Your task to perform on an android device: change notification settings in the gmail app Image 0: 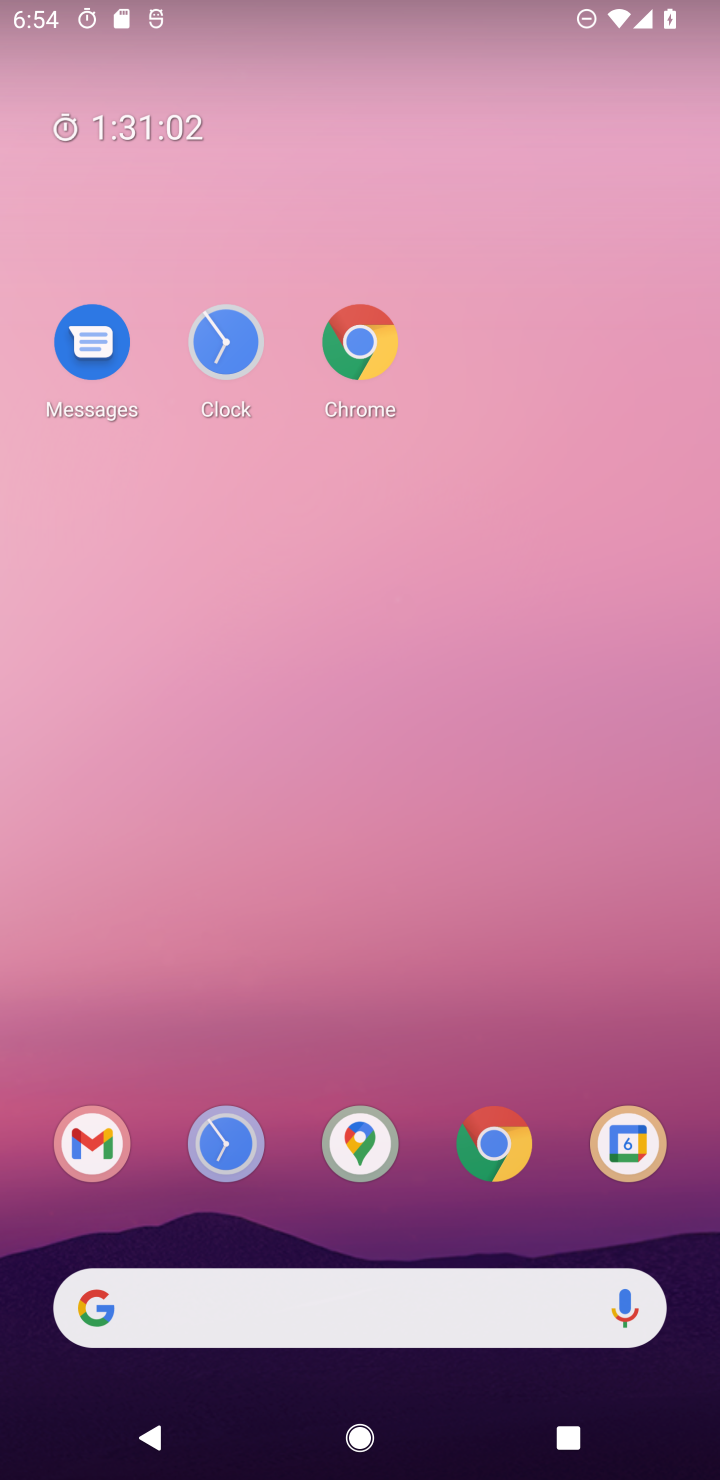
Step 0: drag from (446, 477) to (470, 391)
Your task to perform on an android device: change notification settings in the gmail app Image 1: 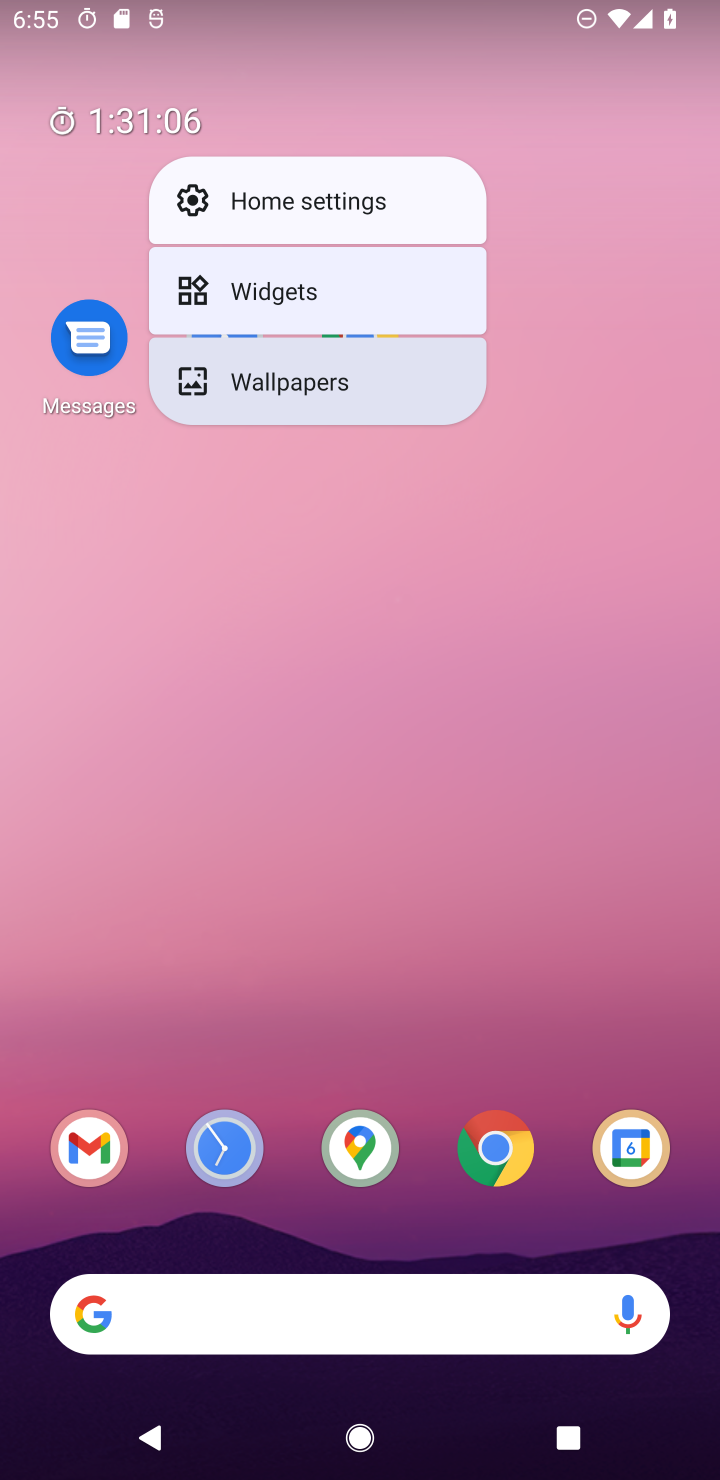
Step 1: drag from (466, 900) to (602, 334)
Your task to perform on an android device: change notification settings in the gmail app Image 2: 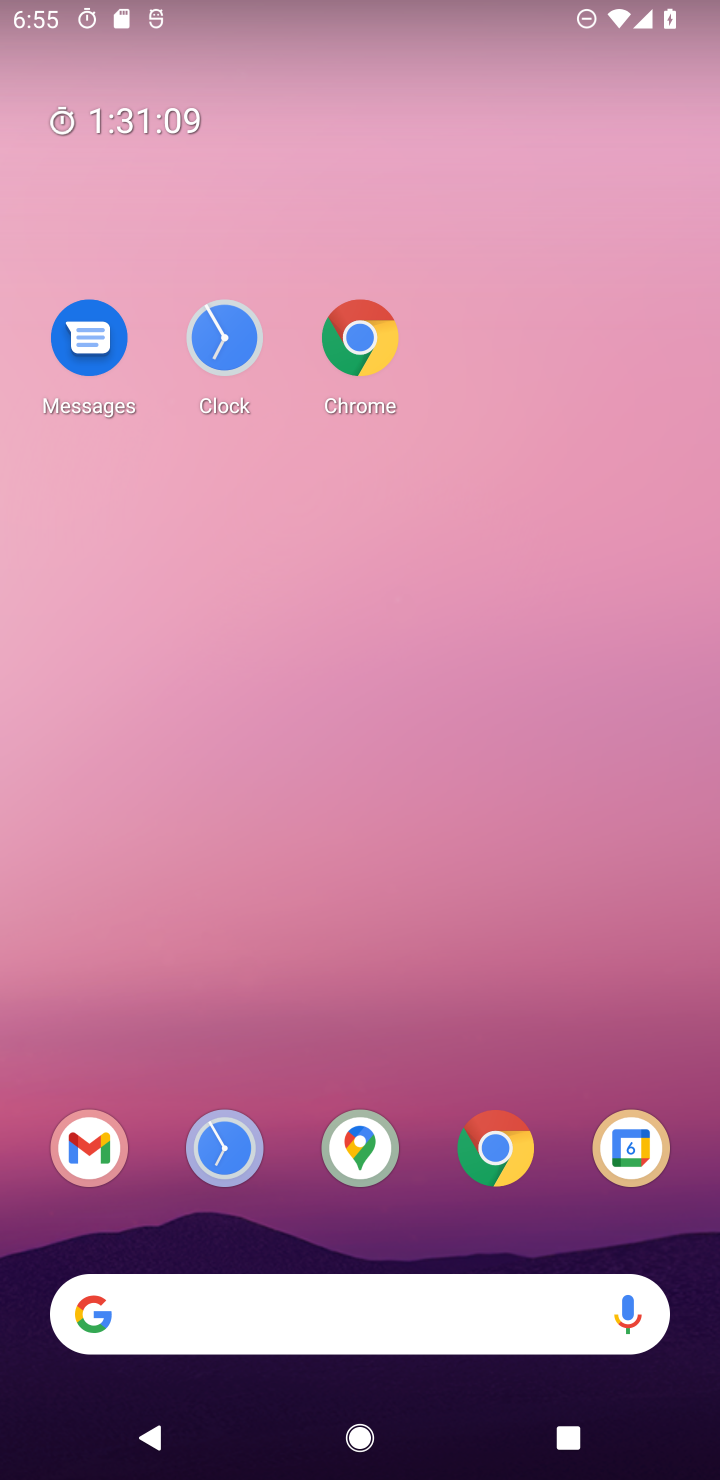
Step 2: drag from (422, 1160) to (539, 230)
Your task to perform on an android device: change notification settings in the gmail app Image 3: 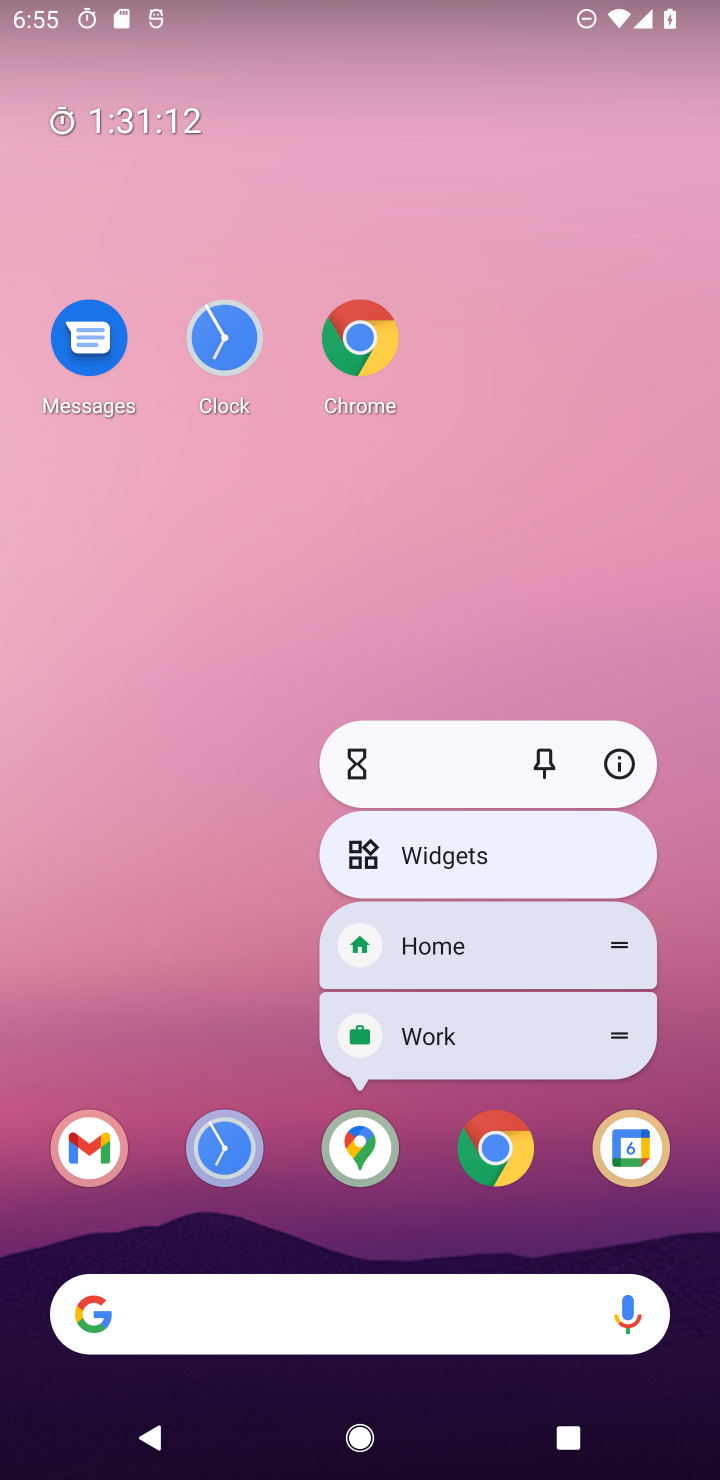
Step 3: click (196, 736)
Your task to perform on an android device: change notification settings in the gmail app Image 4: 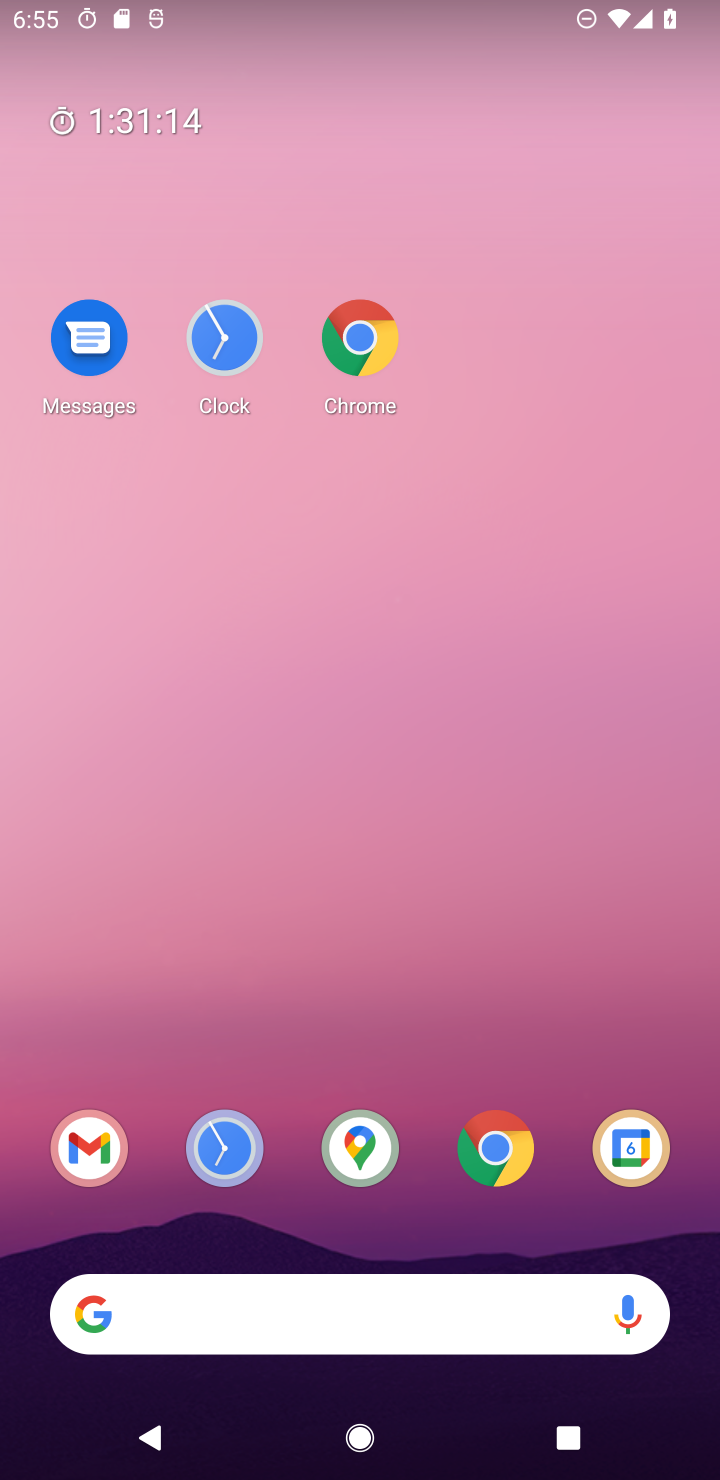
Step 4: drag from (450, 968) to (447, 271)
Your task to perform on an android device: change notification settings in the gmail app Image 5: 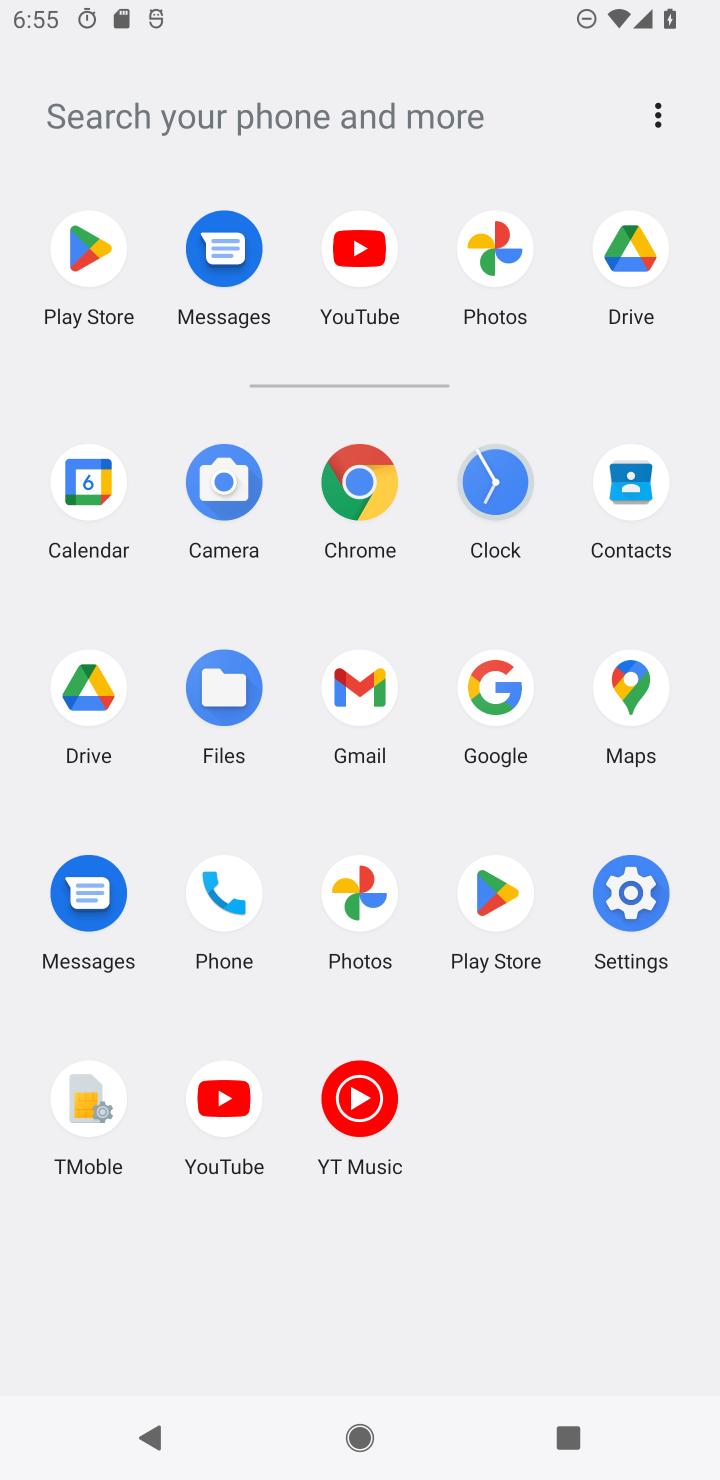
Step 5: click (359, 494)
Your task to perform on an android device: change notification settings in the gmail app Image 6: 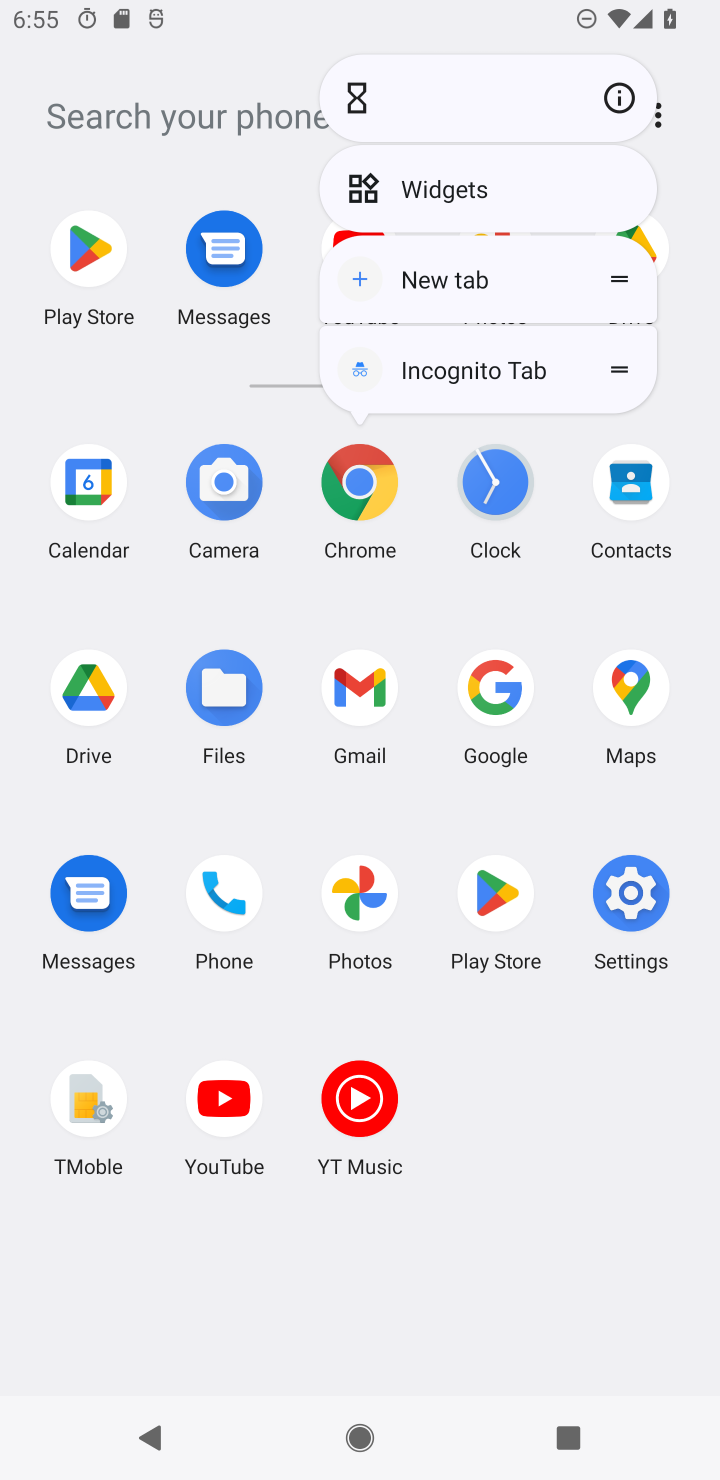
Step 6: click (619, 94)
Your task to perform on an android device: change notification settings in the gmail app Image 7: 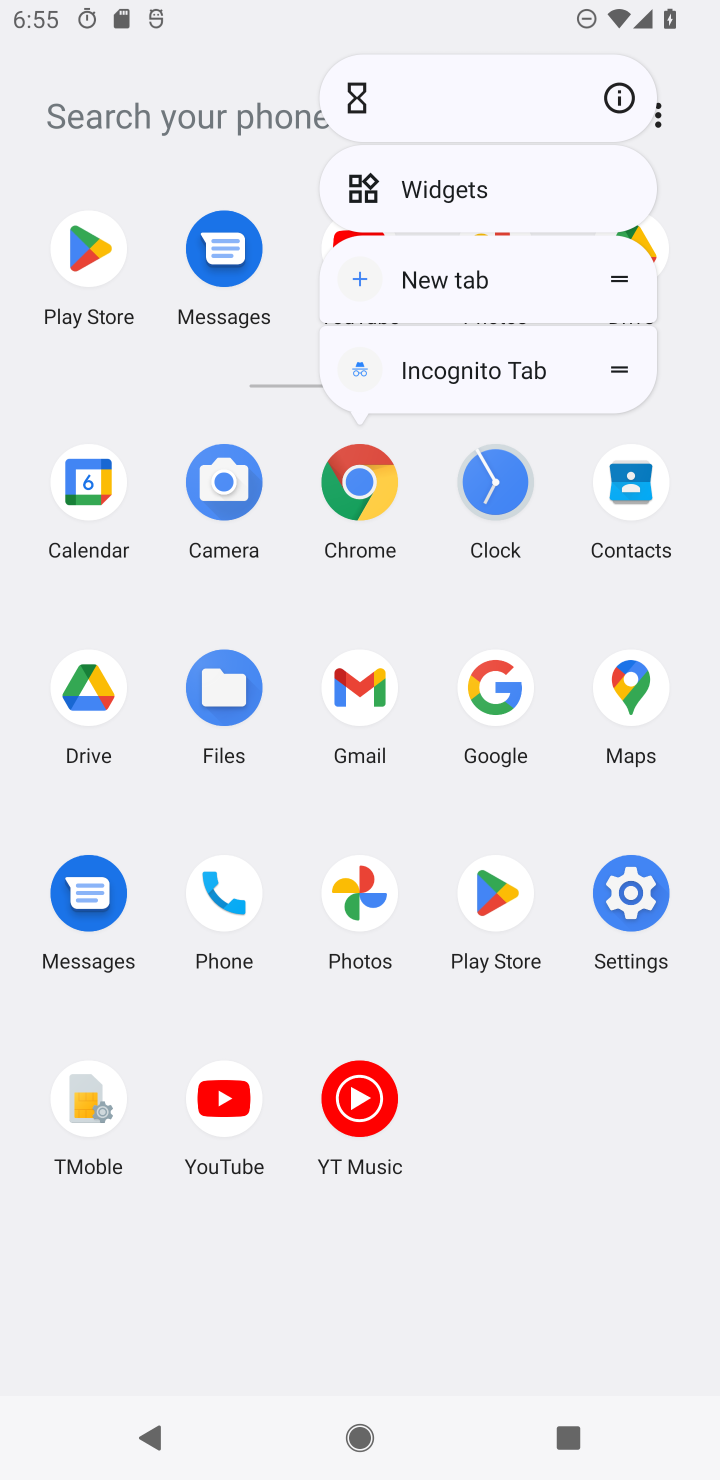
Step 7: click (356, 669)
Your task to perform on an android device: change notification settings in the gmail app Image 8: 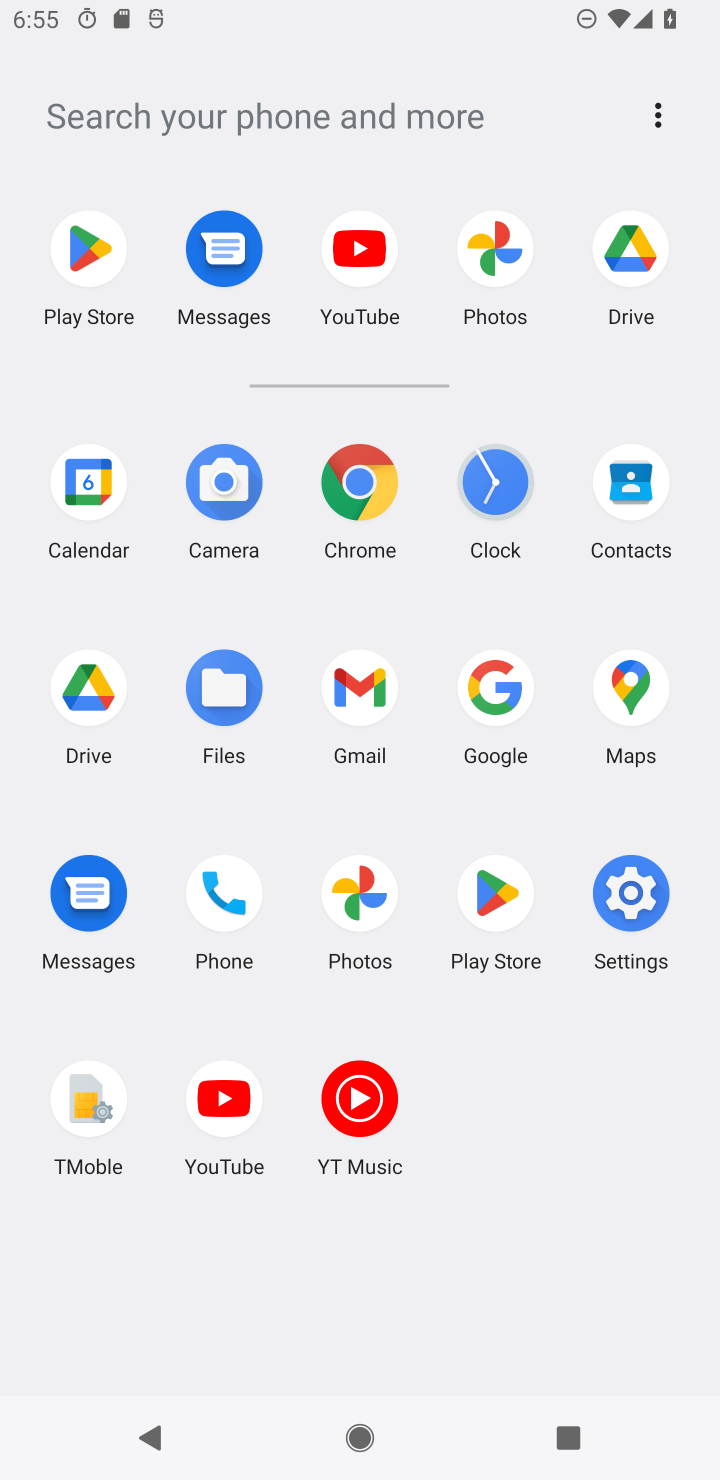
Step 8: click (356, 669)
Your task to perform on an android device: change notification settings in the gmail app Image 9: 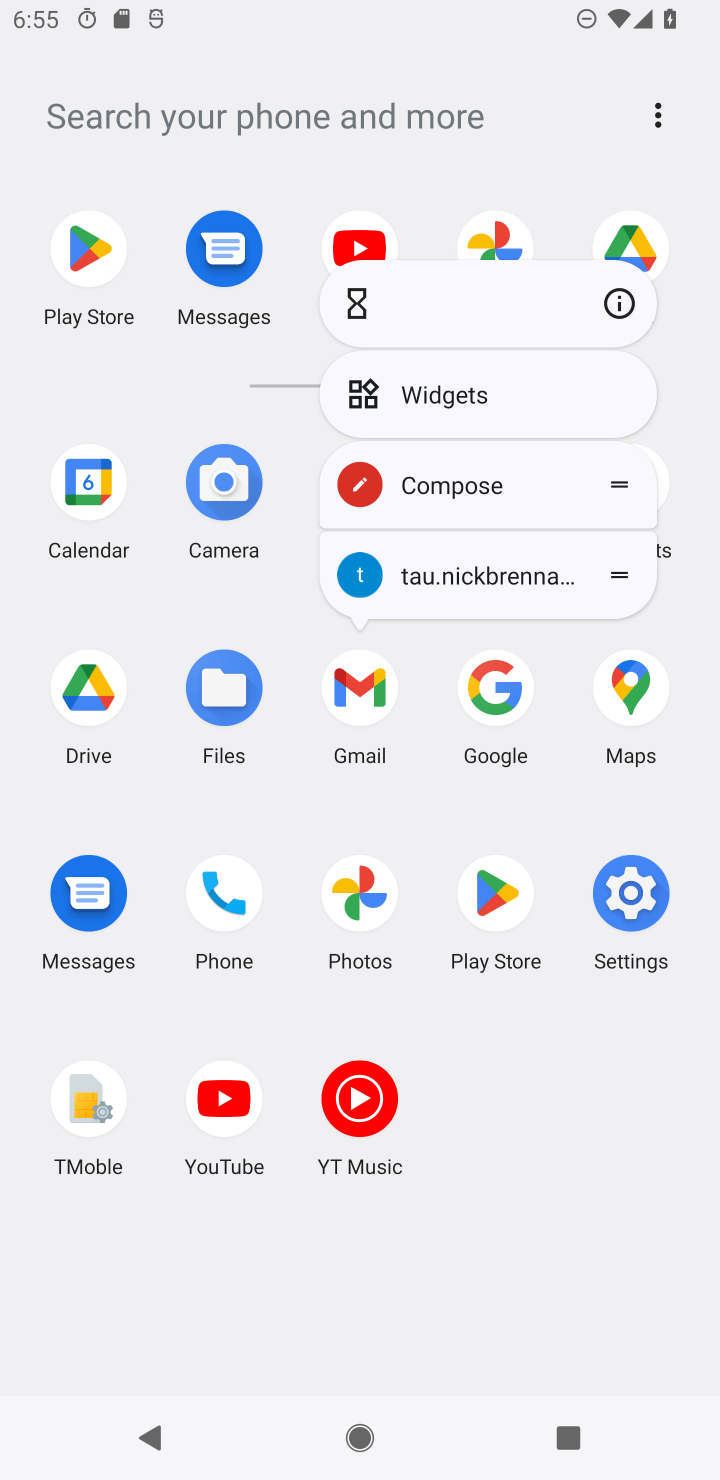
Step 9: click (350, 665)
Your task to perform on an android device: change notification settings in the gmail app Image 10: 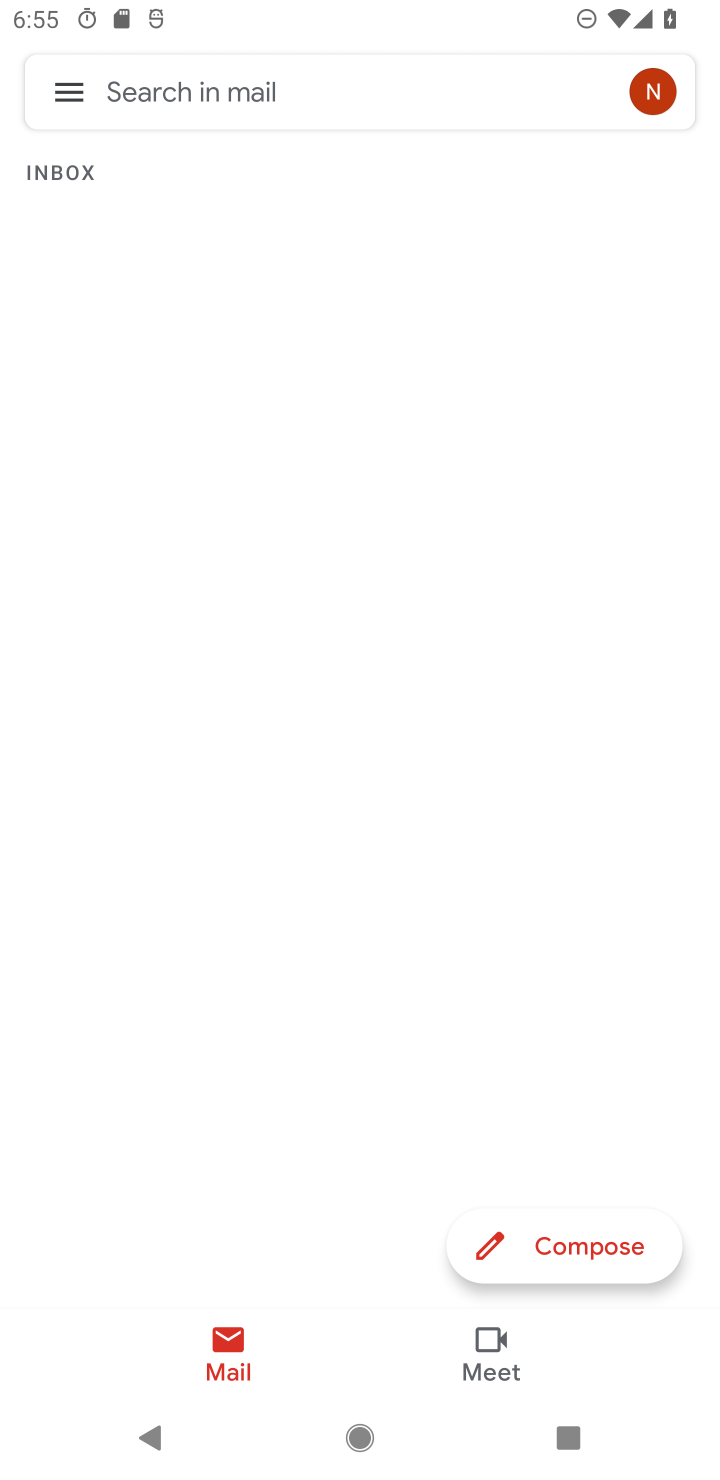
Step 10: click (346, 672)
Your task to perform on an android device: change notification settings in the gmail app Image 11: 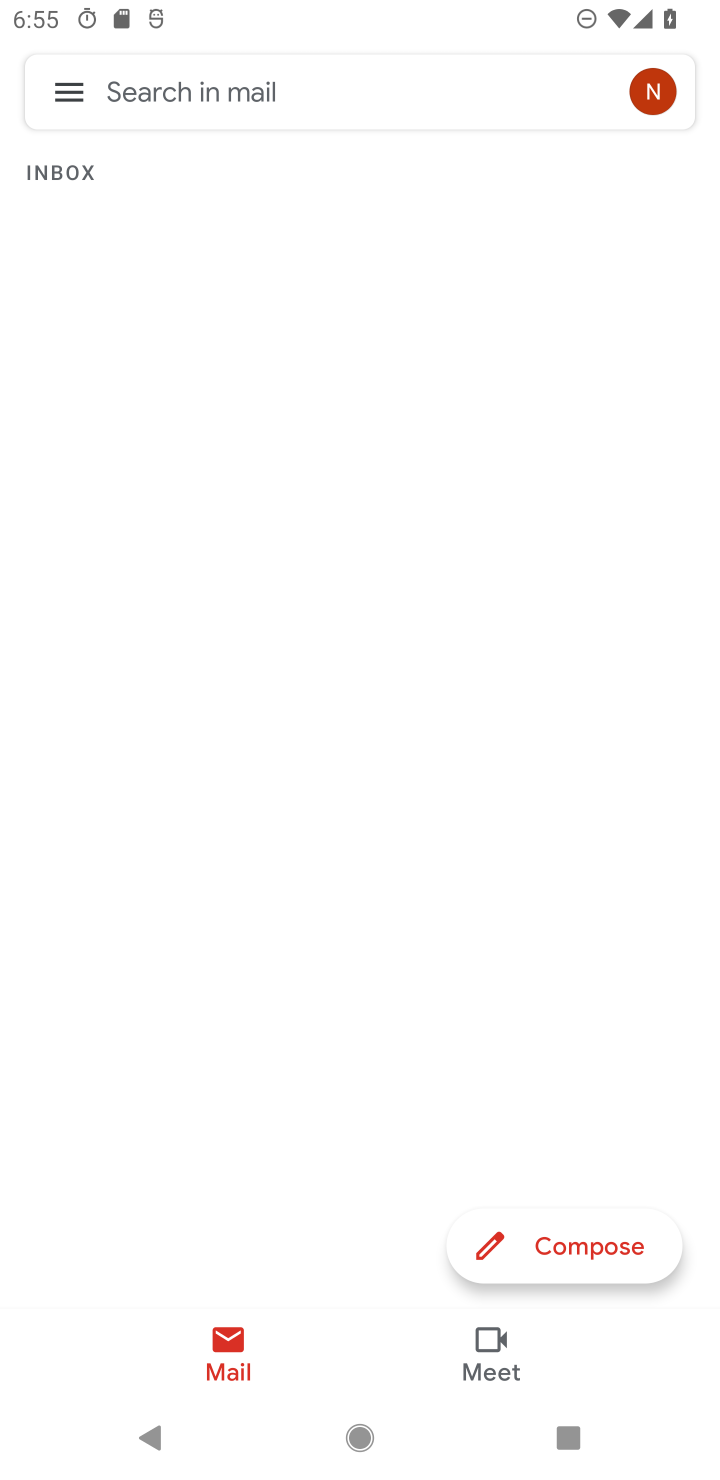
Step 11: drag from (426, 845) to (463, 368)
Your task to perform on an android device: change notification settings in the gmail app Image 12: 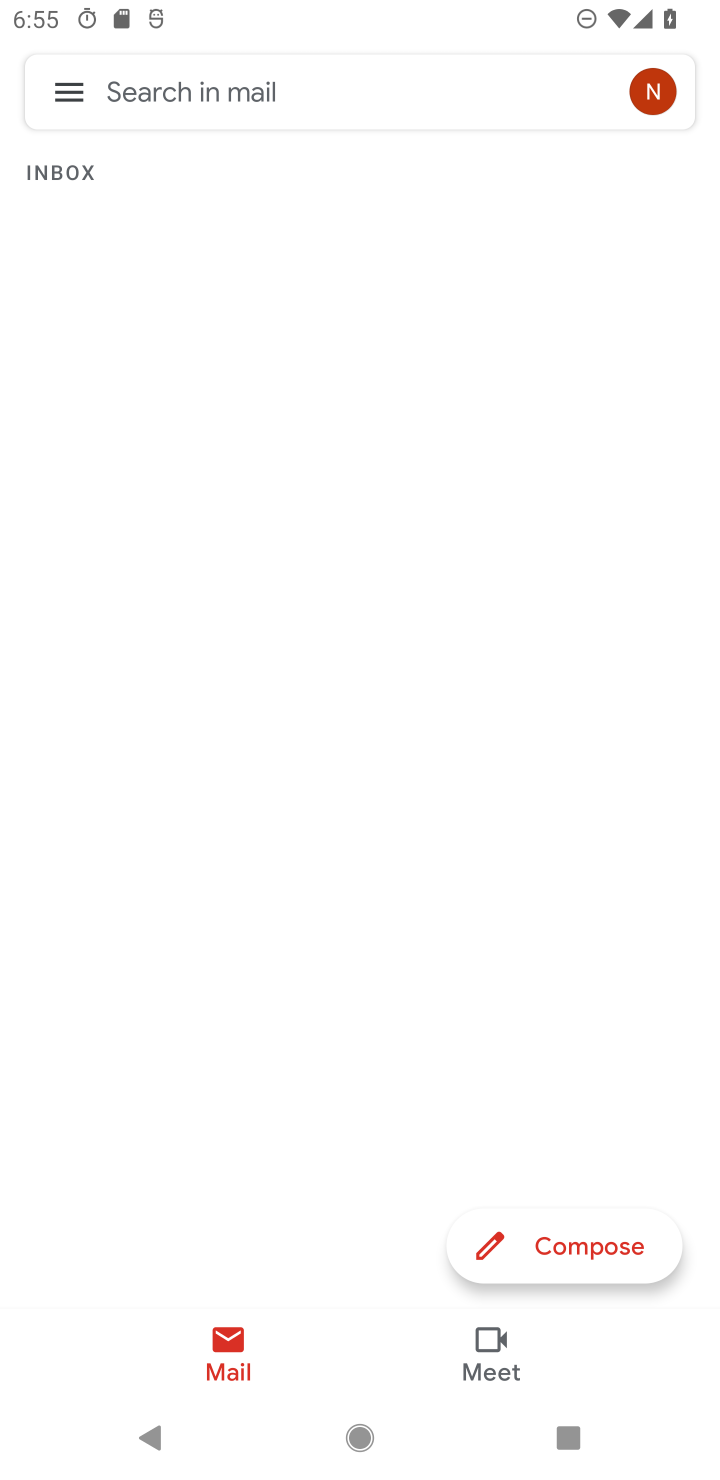
Step 12: drag from (284, 976) to (310, 580)
Your task to perform on an android device: change notification settings in the gmail app Image 13: 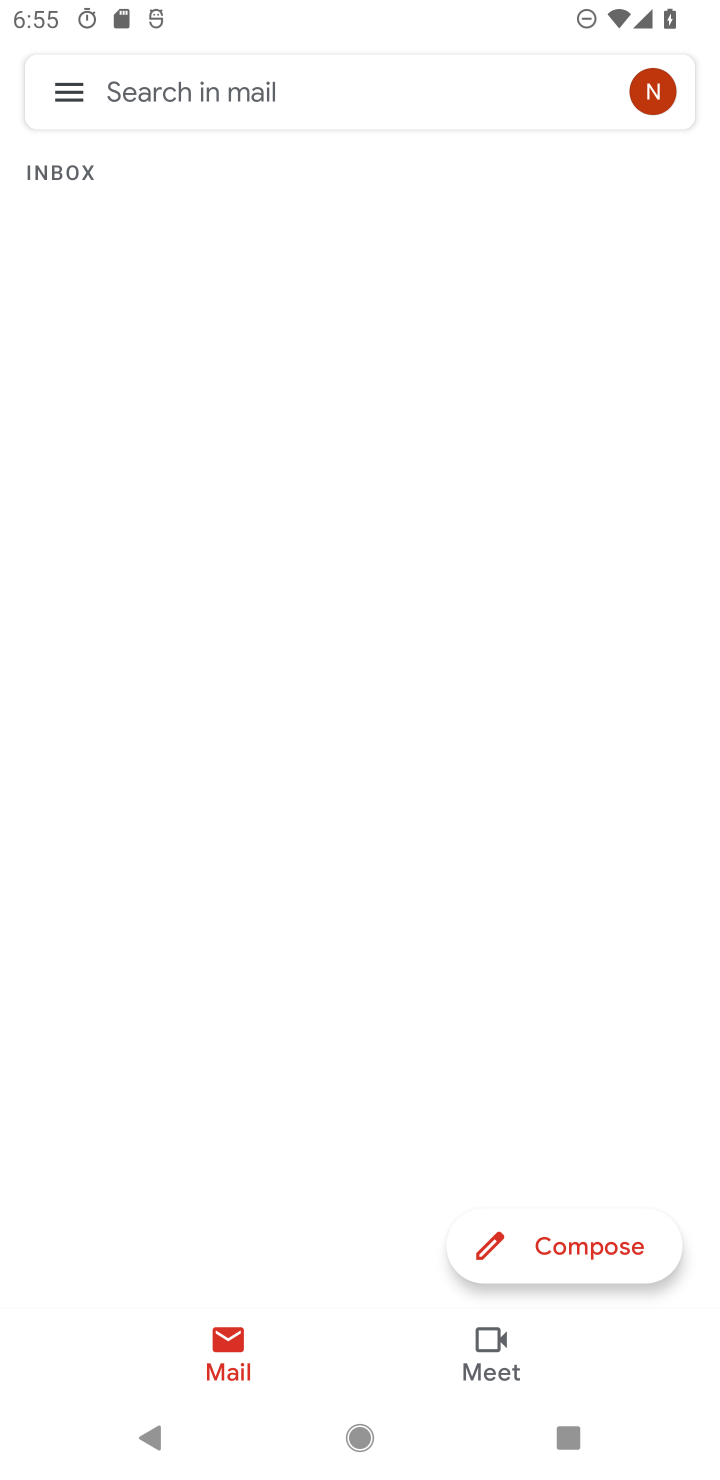
Step 13: click (39, 100)
Your task to perform on an android device: change notification settings in the gmail app Image 14: 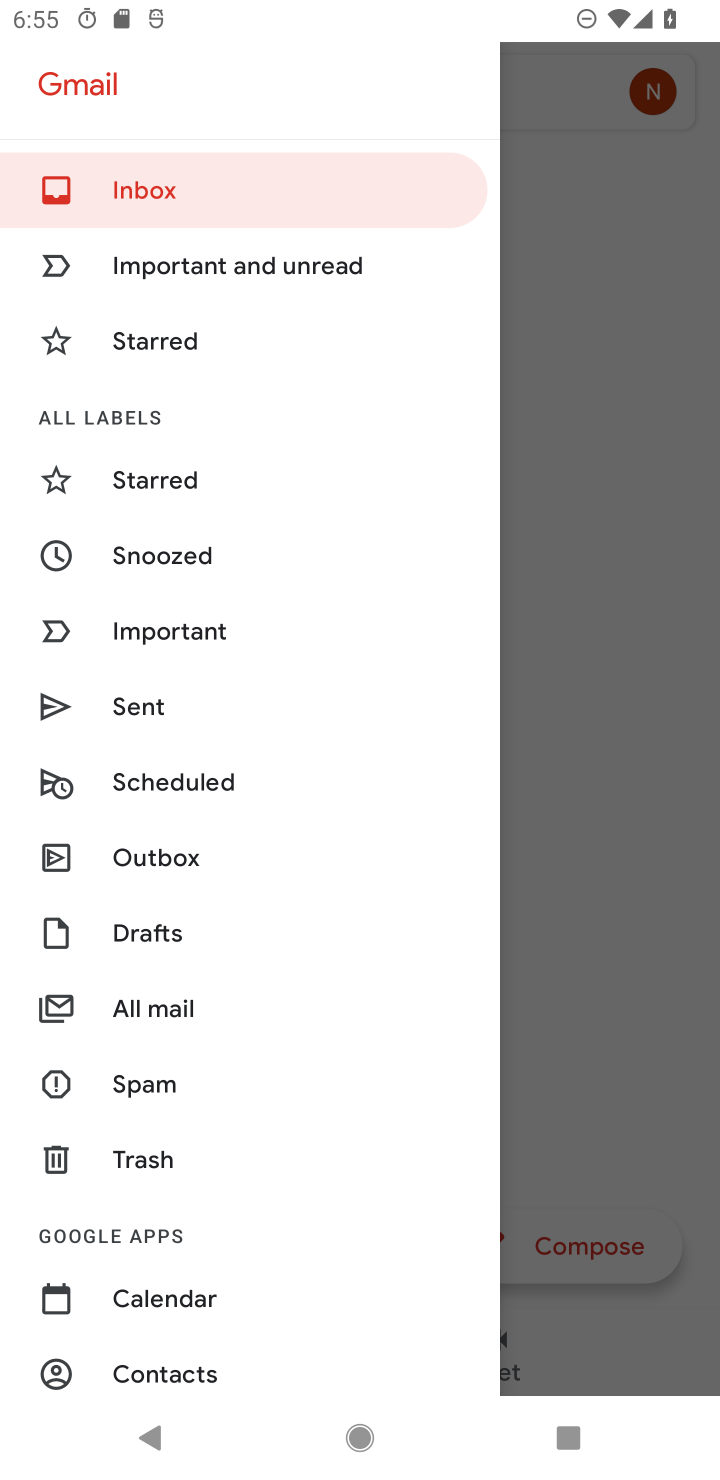
Step 14: drag from (332, 577) to (356, 395)
Your task to perform on an android device: change notification settings in the gmail app Image 15: 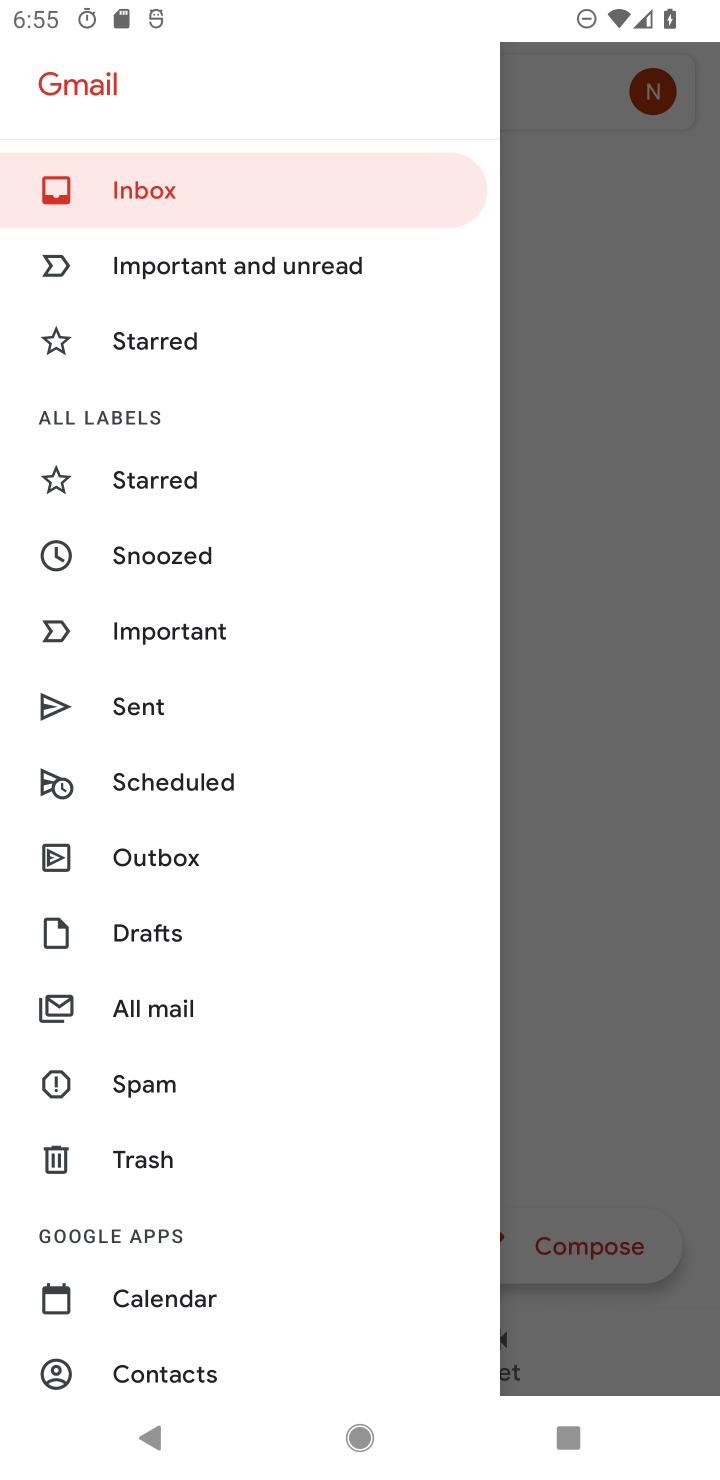
Step 15: drag from (233, 977) to (459, 120)
Your task to perform on an android device: change notification settings in the gmail app Image 16: 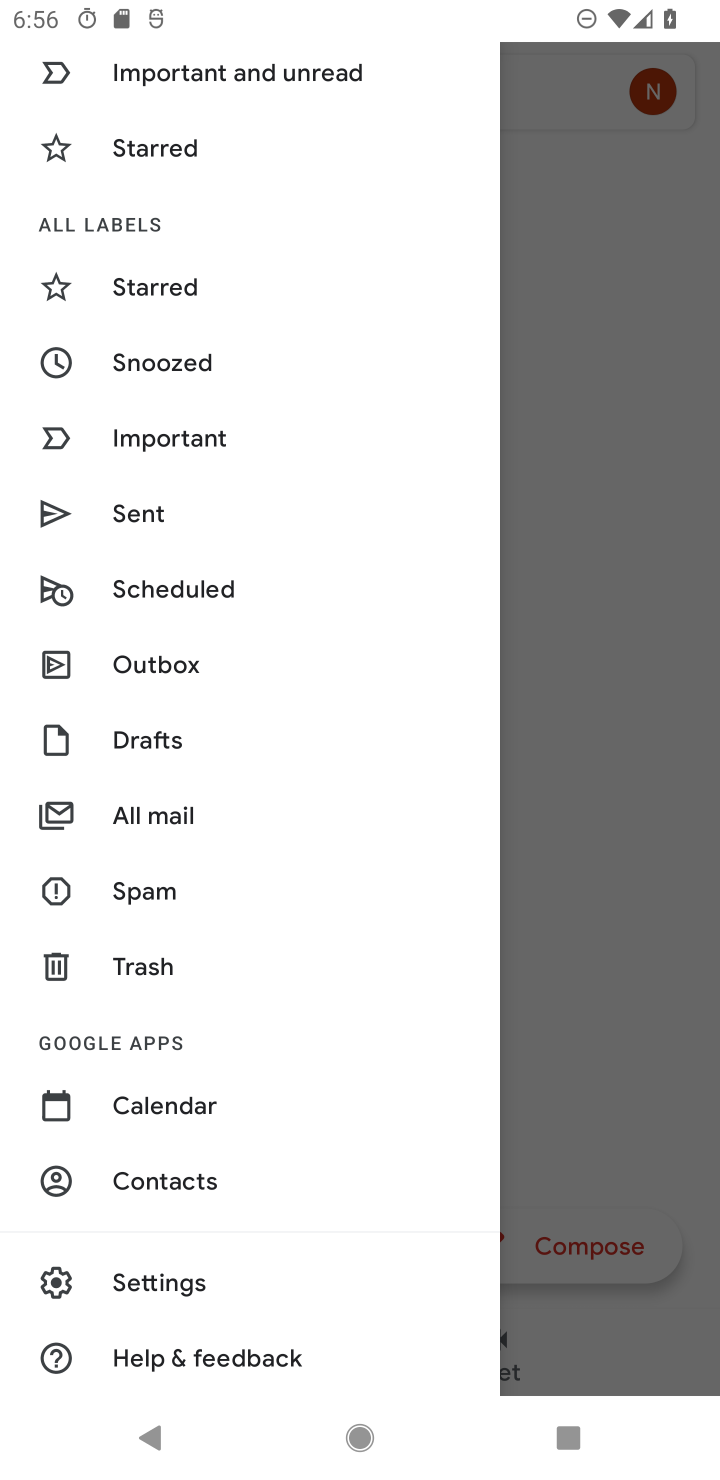
Step 16: click (212, 1275)
Your task to perform on an android device: change notification settings in the gmail app Image 17: 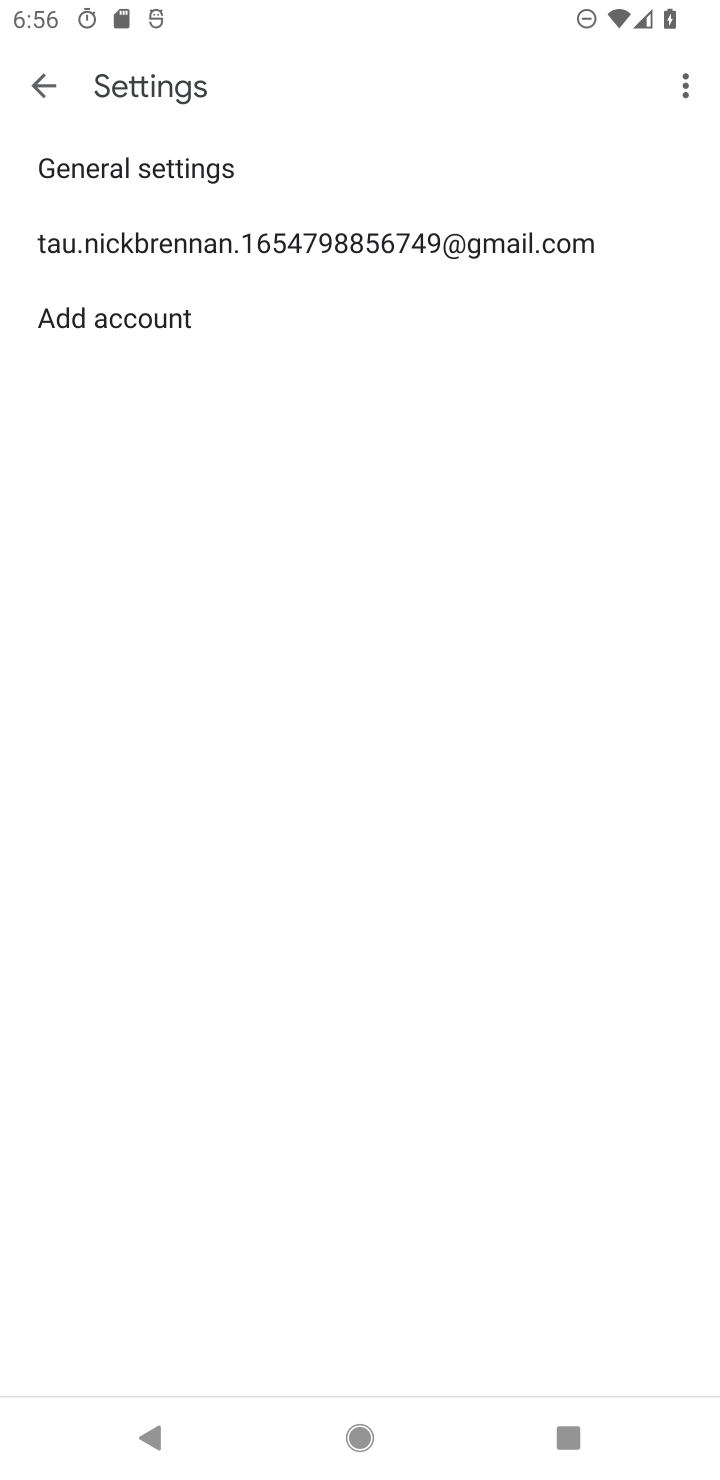
Step 17: drag from (373, 1162) to (409, 307)
Your task to perform on an android device: change notification settings in the gmail app Image 18: 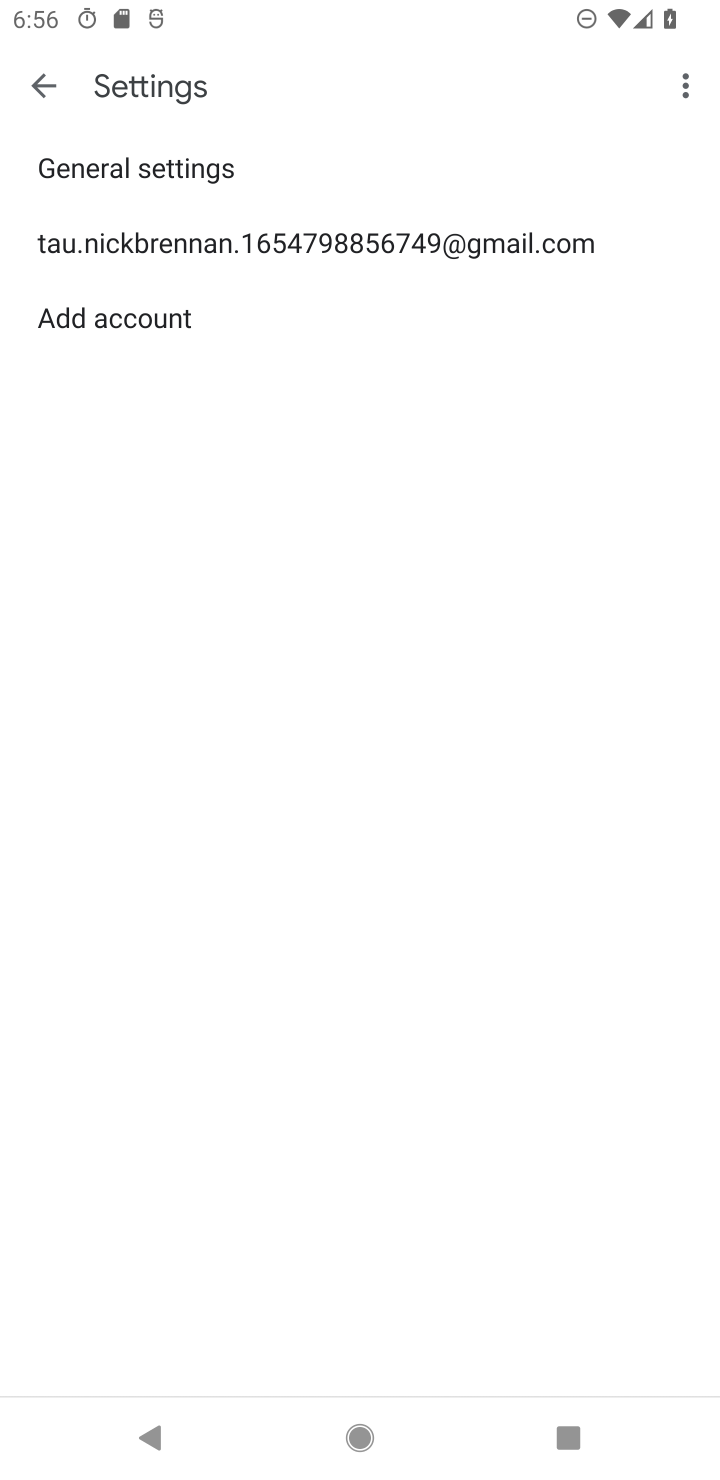
Step 18: click (414, 245)
Your task to perform on an android device: change notification settings in the gmail app Image 19: 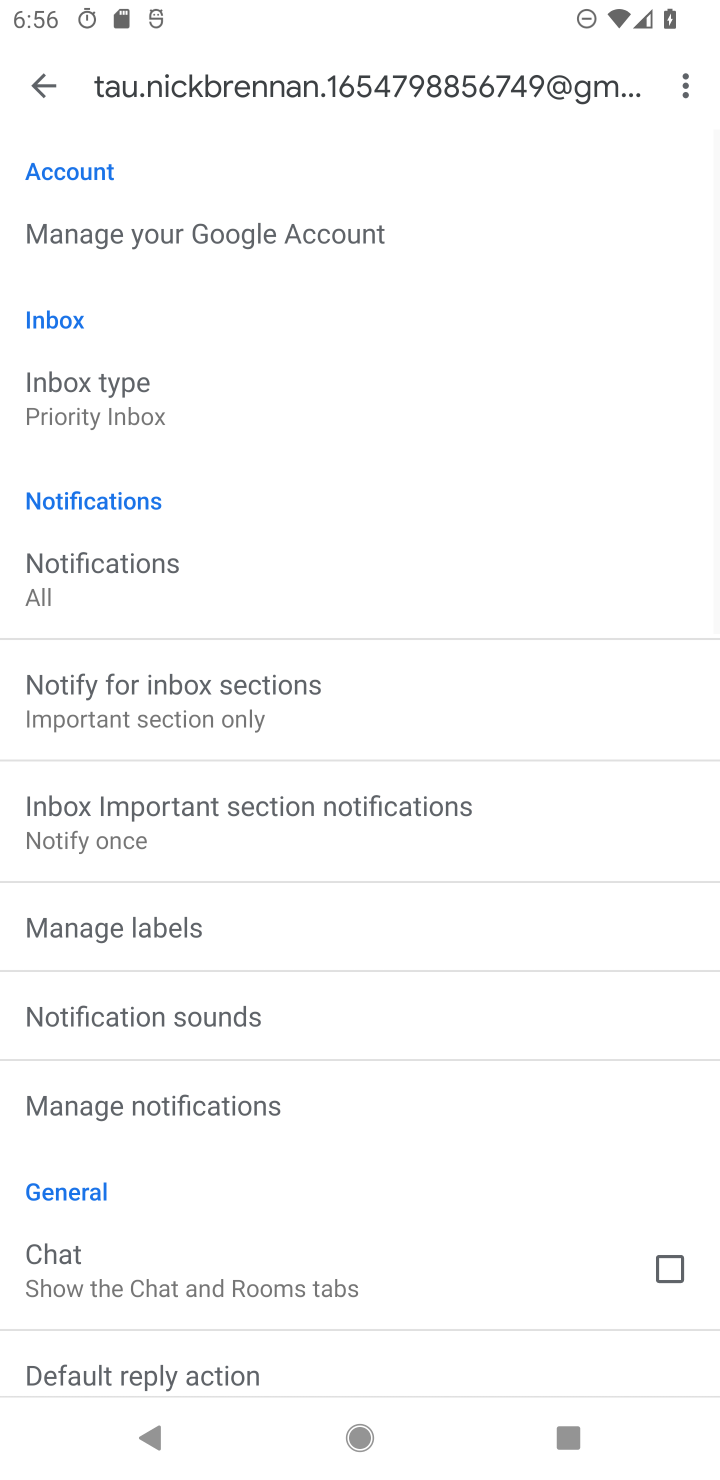
Step 19: click (175, 1109)
Your task to perform on an android device: change notification settings in the gmail app Image 20: 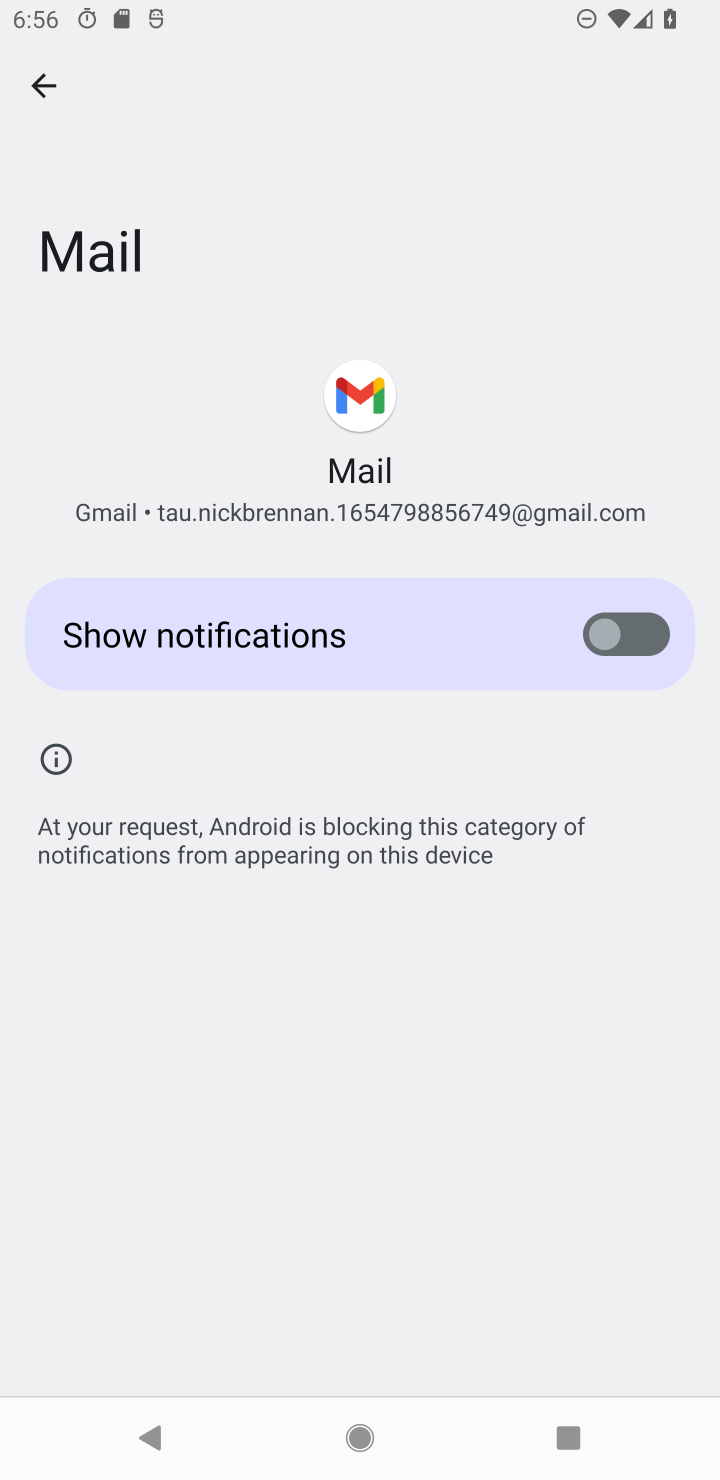
Step 20: drag from (340, 1057) to (473, 283)
Your task to perform on an android device: change notification settings in the gmail app Image 21: 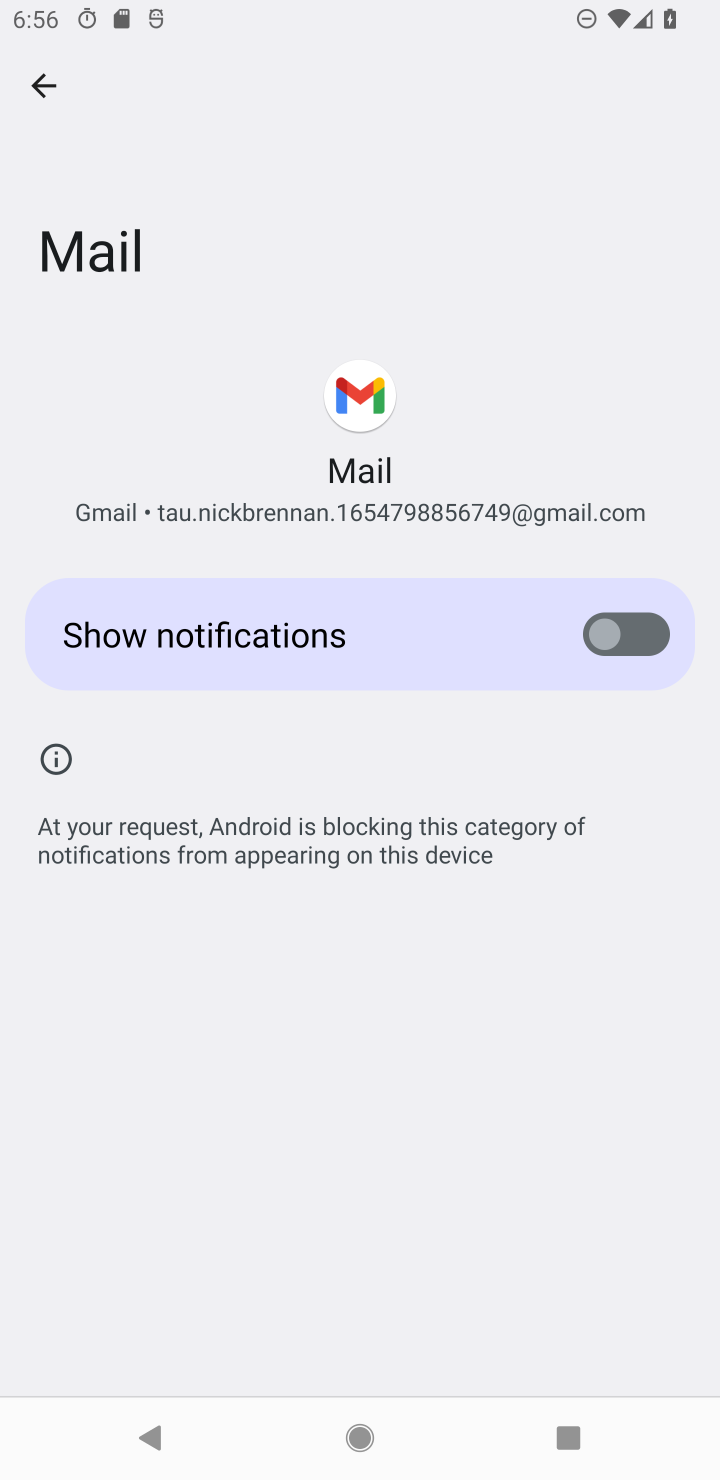
Step 21: click (548, 590)
Your task to perform on an android device: change notification settings in the gmail app Image 22: 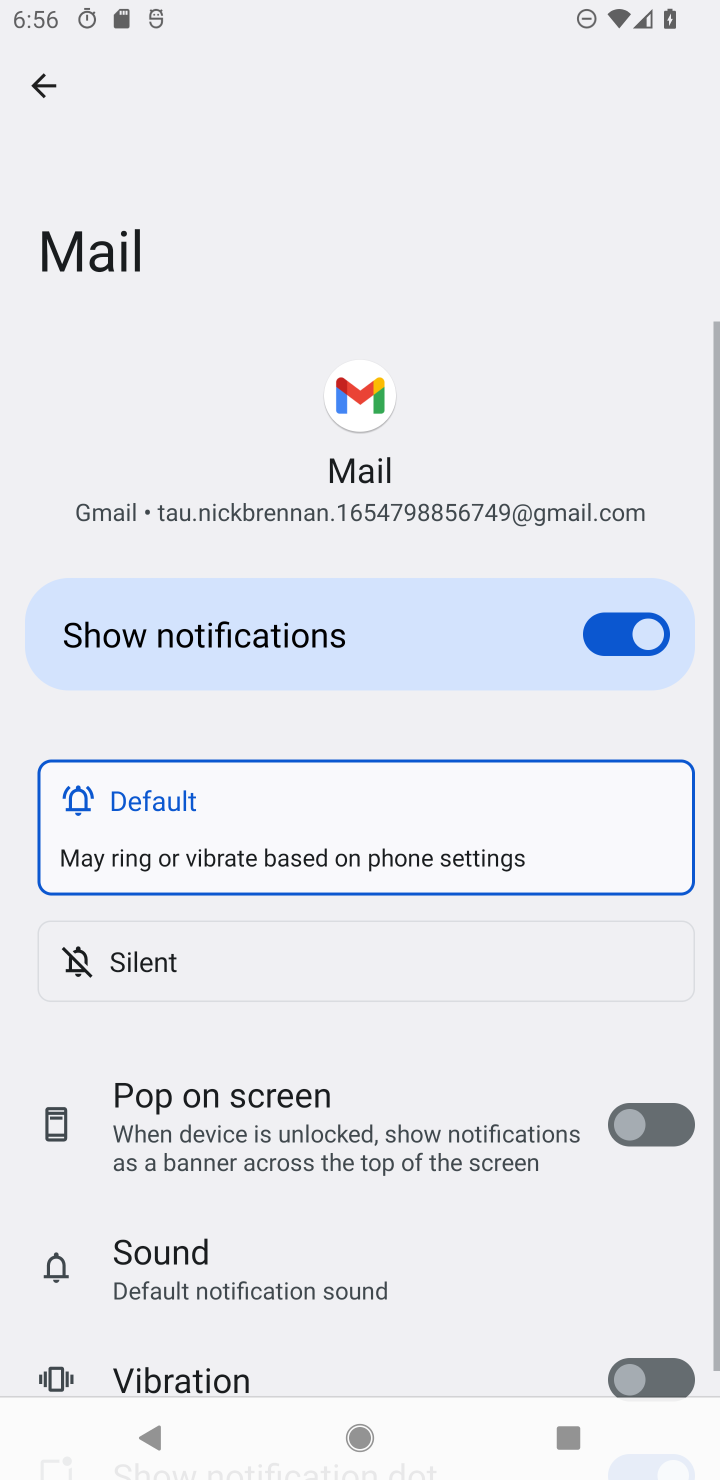
Step 22: task complete